Your task to perform on an android device: find snoozed emails in the gmail app Image 0: 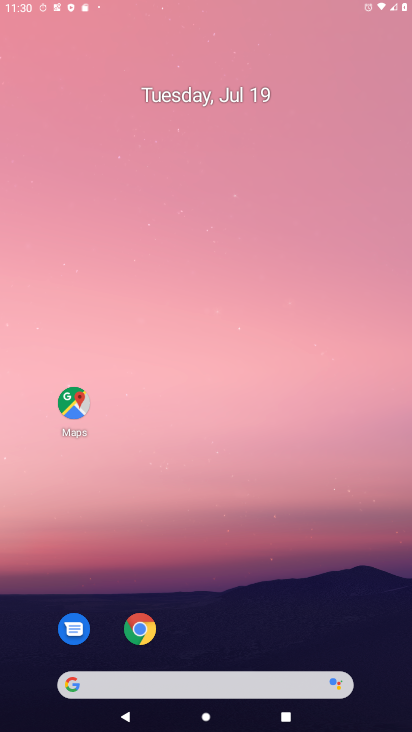
Step 0: click (184, 211)
Your task to perform on an android device: find snoozed emails in the gmail app Image 1: 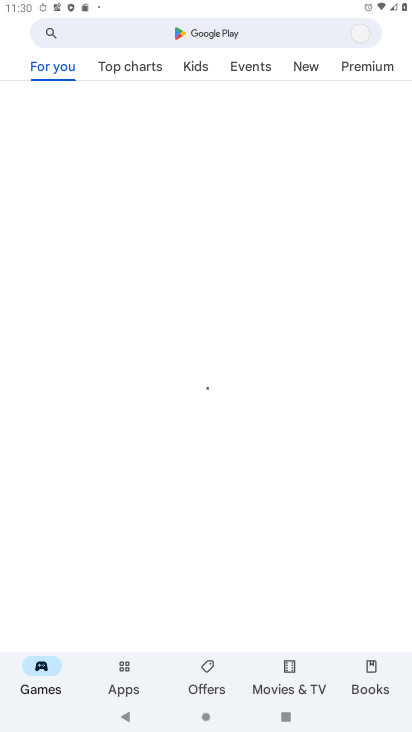
Step 1: press back button
Your task to perform on an android device: find snoozed emails in the gmail app Image 2: 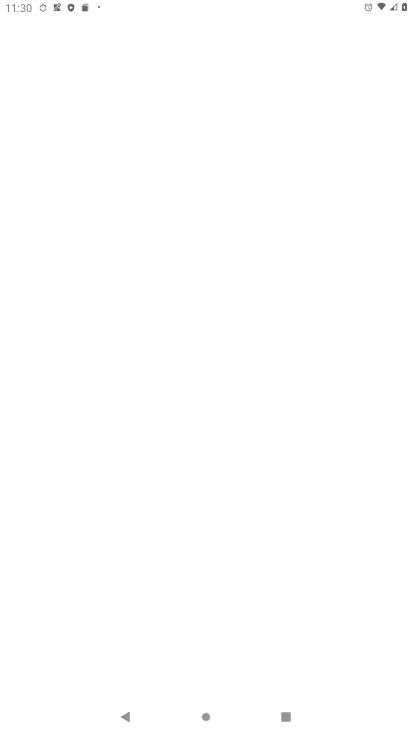
Step 2: press home button
Your task to perform on an android device: find snoozed emails in the gmail app Image 3: 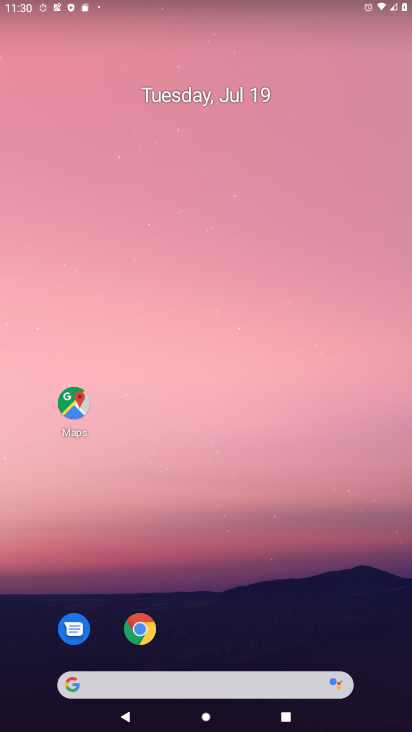
Step 3: drag from (194, 515) to (96, 59)
Your task to perform on an android device: find snoozed emails in the gmail app Image 4: 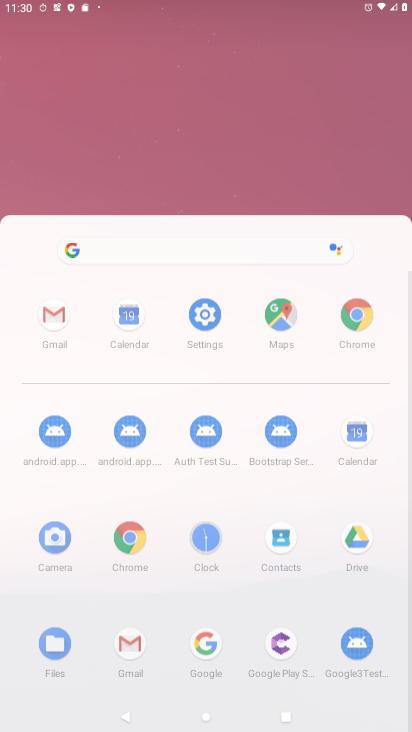
Step 4: drag from (174, 420) to (103, 79)
Your task to perform on an android device: find snoozed emails in the gmail app Image 5: 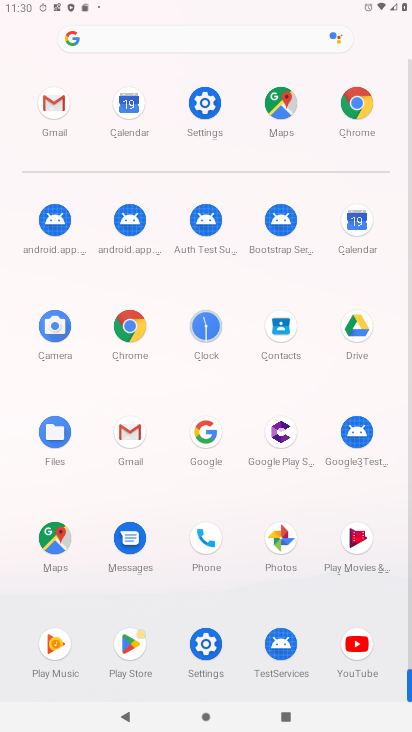
Step 5: drag from (137, 456) to (148, 1)
Your task to perform on an android device: find snoozed emails in the gmail app Image 6: 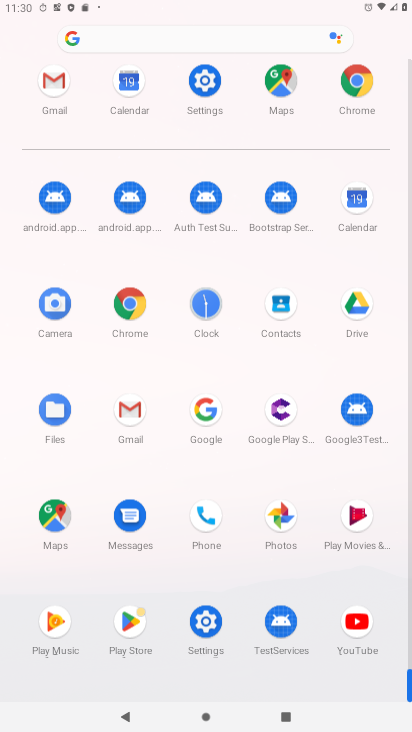
Step 6: drag from (288, 542) to (222, 49)
Your task to perform on an android device: find snoozed emails in the gmail app Image 7: 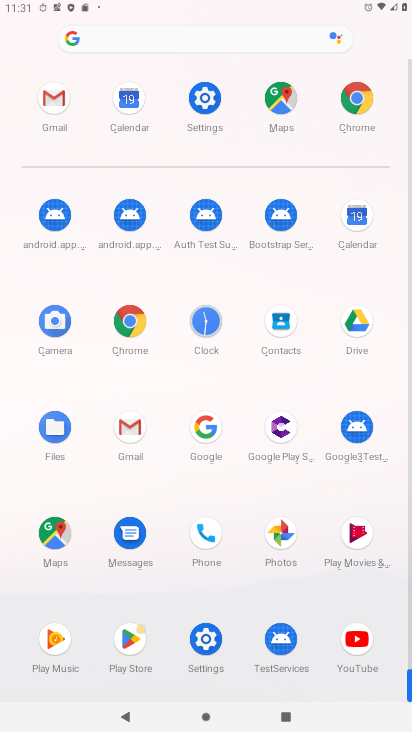
Step 7: click (115, 397)
Your task to perform on an android device: find snoozed emails in the gmail app Image 8: 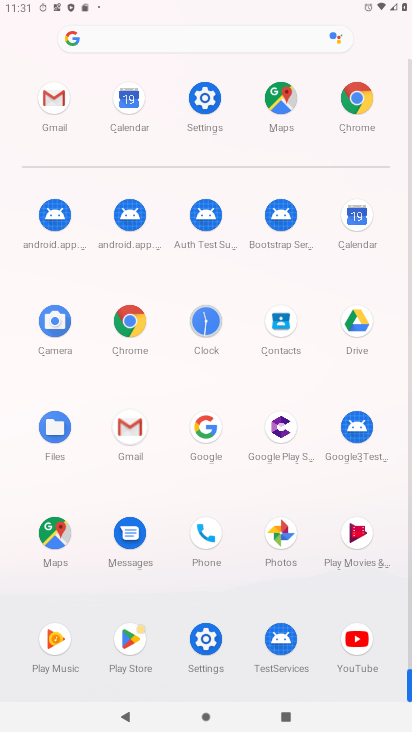
Step 8: click (126, 415)
Your task to perform on an android device: find snoozed emails in the gmail app Image 9: 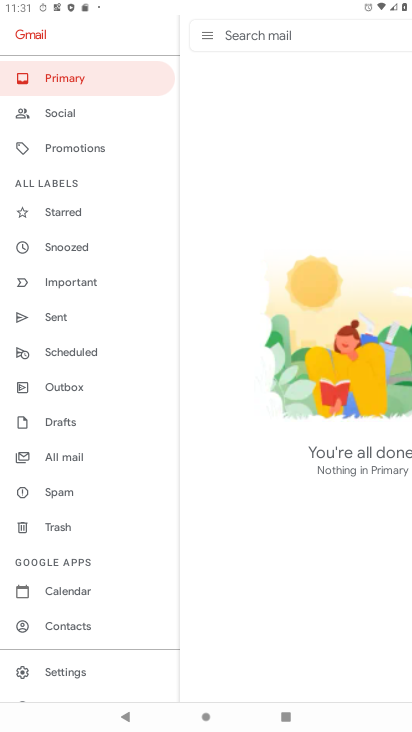
Step 9: click (63, 240)
Your task to perform on an android device: find snoozed emails in the gmail app Image 10: 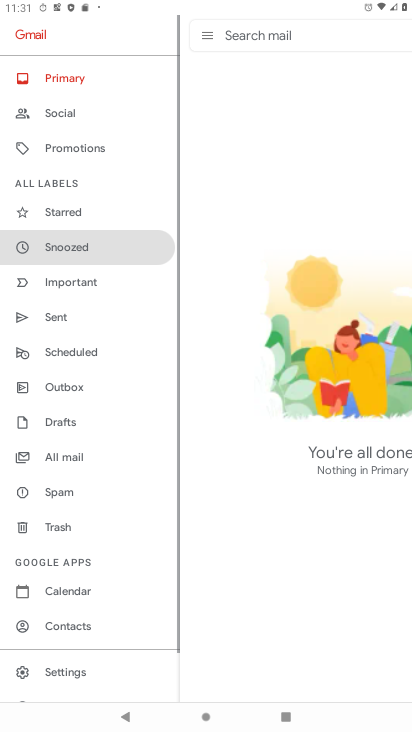
Step 10: click (67, 242)
Your task to perform on an android device: find snoozed emails in the gmail app Image 11: 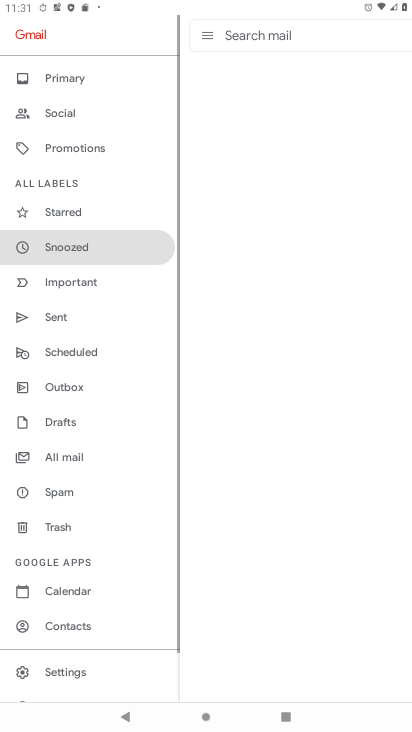
Step 11: click (67, 247)
Your task to perform on an android device: find snoozed emails in the gmail app Image 12: 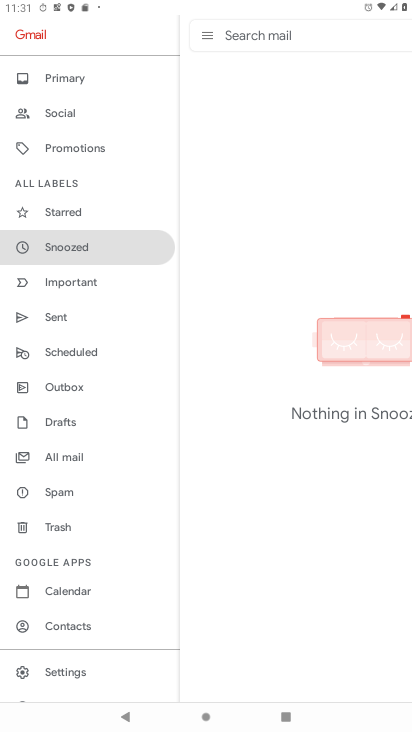
Step 12: task complete